Your task to perform on an android device: all mails in gmail Image 0: 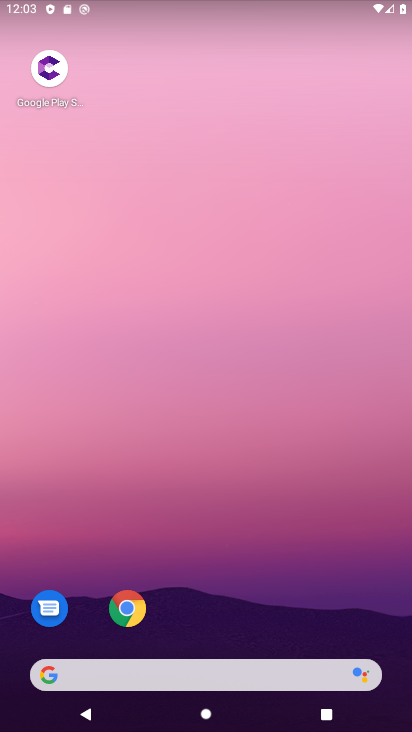
Step 0: drag from (392, 659) to (337, 246)
Your task to perform on an android device: all mails in gmail Image 1: 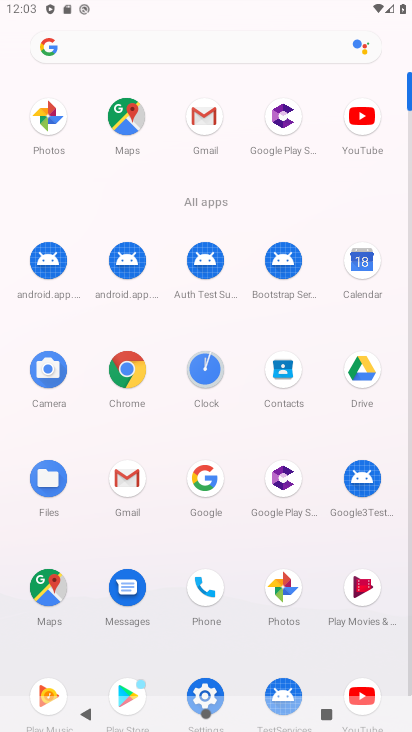
Step 1: click (211, 105)
Your task to perform on an android device: all mails in gmail Image 2: 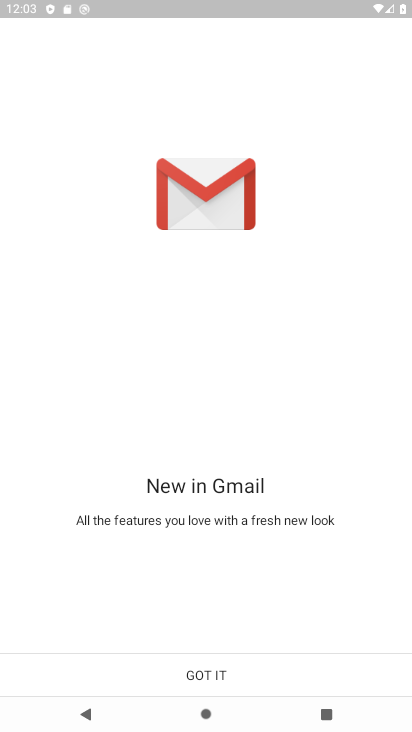
Step 2: click (199, 682)
Your task to perform on an android device: all mails in gmail Image 3: 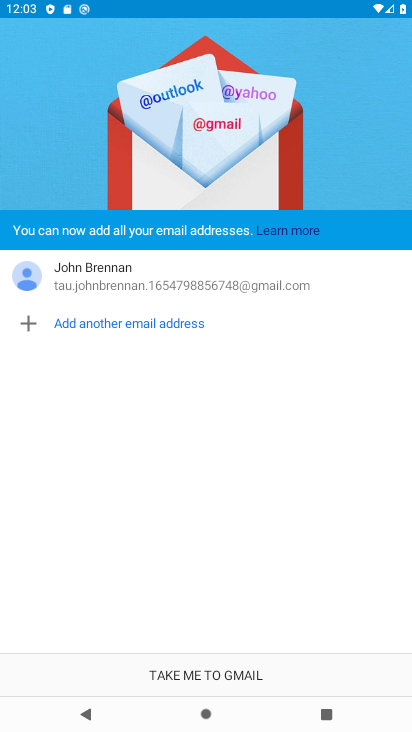
Step 3: click (199, 682)
Your task to perform on an android device: all mails in gmail Image 4: 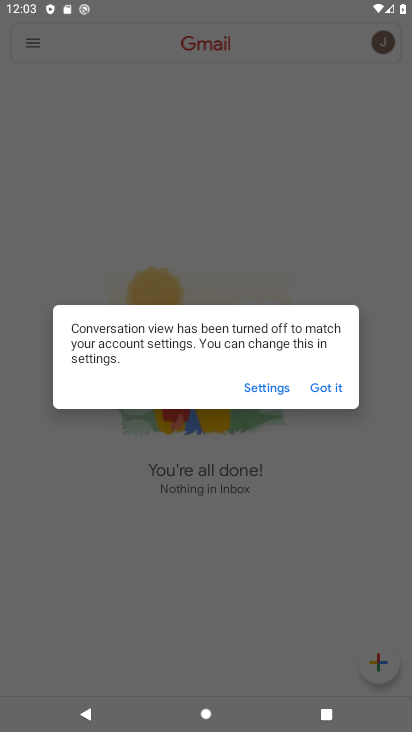
Step 4: click (322, 394)
Your task to perform on an android device: all mails in gmail Image 5: 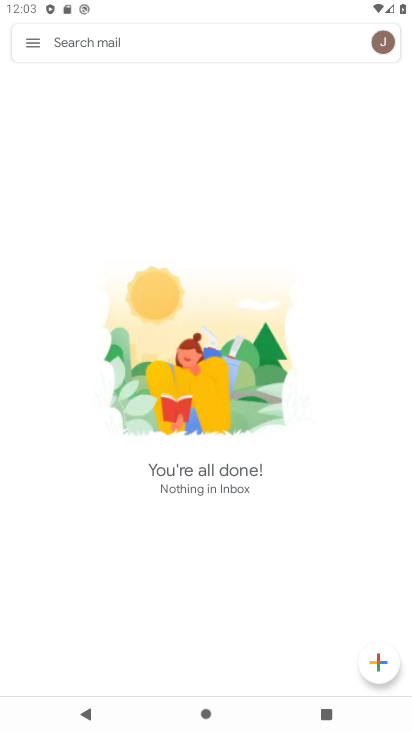
Step 5: click (31, 48)
Your task to perform on an android device: all mails in gmail Image 6: 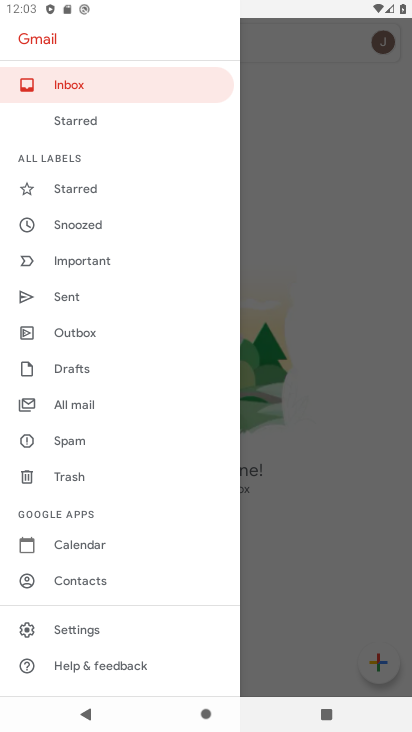
Step 6: click (80, 391)
Your task to perform on an android device: all mails in gmail Image 7: 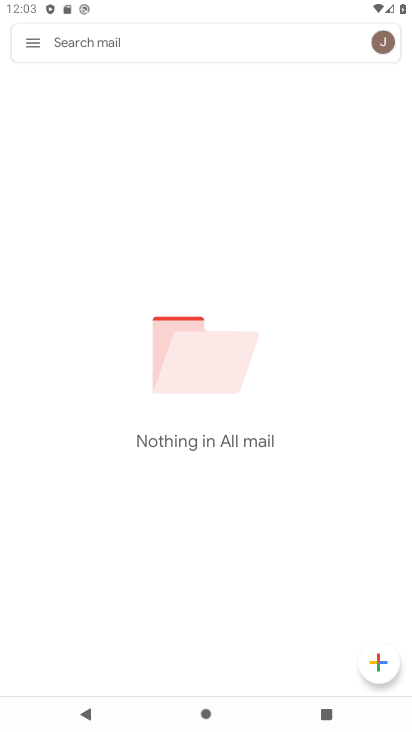
Step 7: task complete